Your task to perform on an android device: turn off notifications in google photos Image 0: 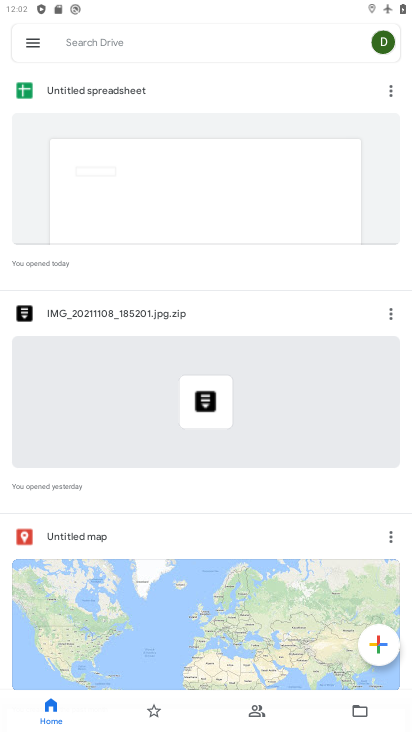
Step 0: press home button
Your task to perform on an android device: turn off notifications in google photos Image 1: 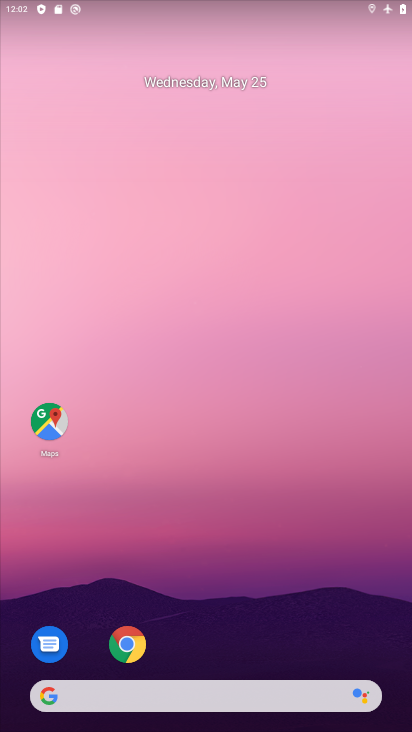
Step 1: drag from (199, 573) to (143, 80)
Your task to perform on an android device: turn off notifications in google photos Image 2: 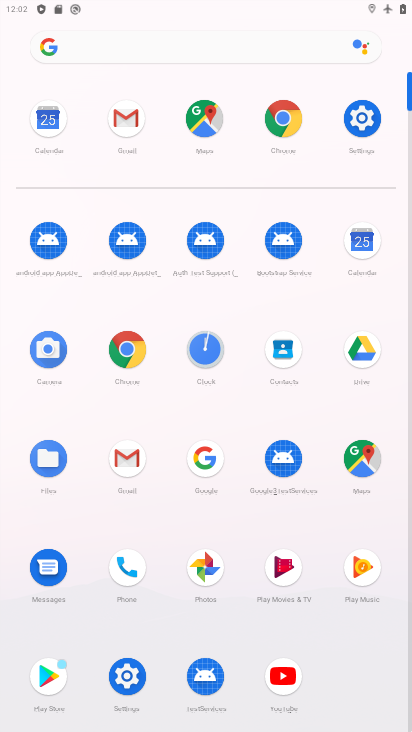
Step 2: click (200, 564)
Your task to perform on an android device: turn off notifications in google photos Image 3: 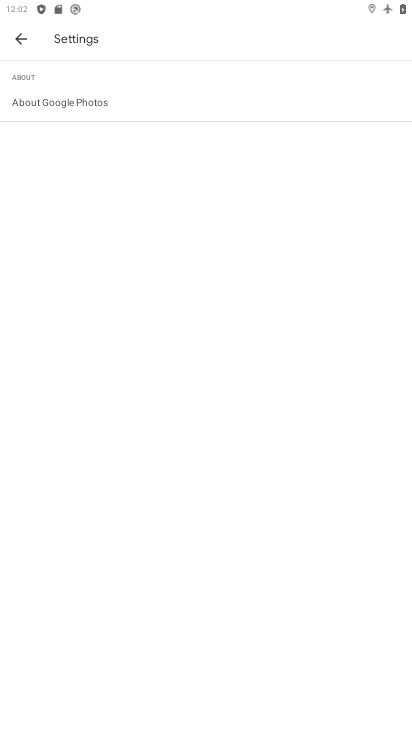
Step 3: click (22, 36)
Your task to perform on an android device: turn off notifications in google photos Image 4: 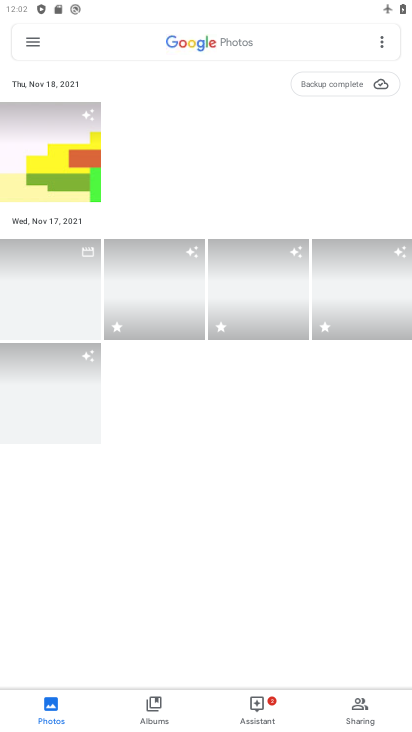
Step 4: click (29, 42)
Your task to perform on an android device: turn off notifications in google photos Image 5: 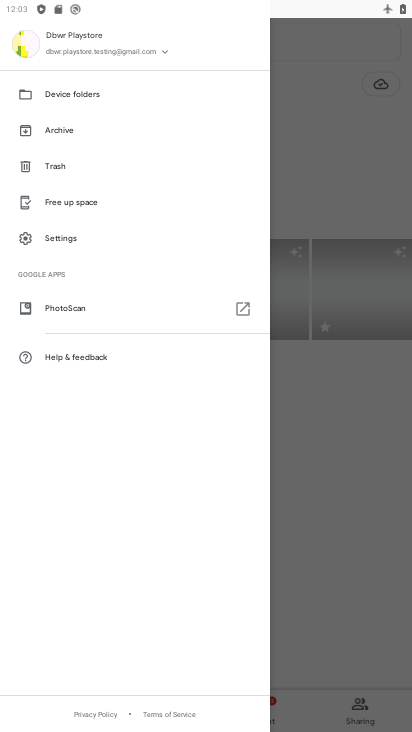
Step 5: click (58, 232)
Your task to perform on an android device: turn off notifications in google photos Image 6: 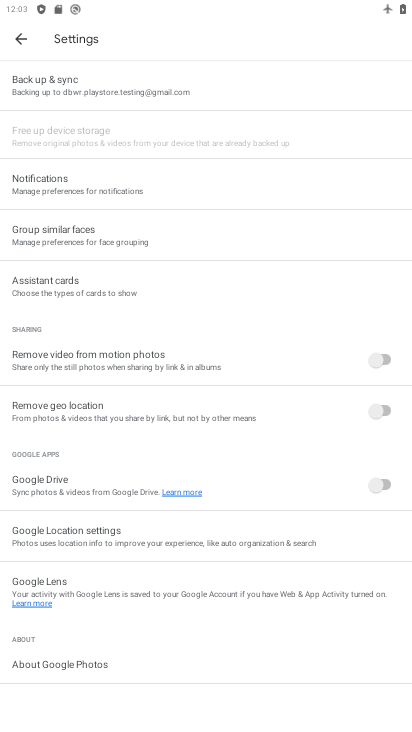
Step 6: click (48, 178)
Your task to perform on an android device: turn off notifications in google photos Image 7: 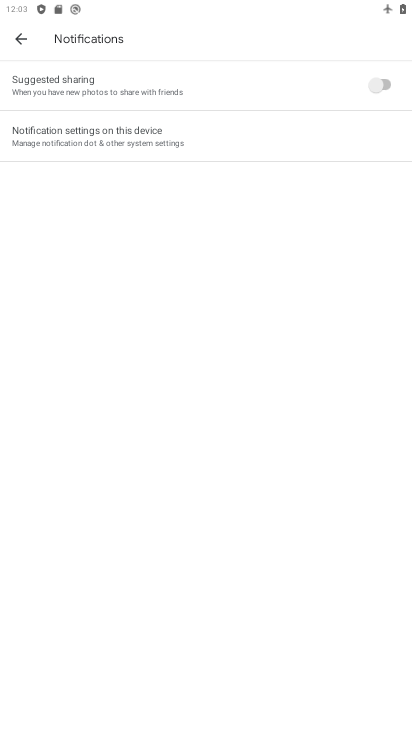
Step 7: click (122, 118)
Your task to perform on an android device: turn off notifications in google photos Image 8: 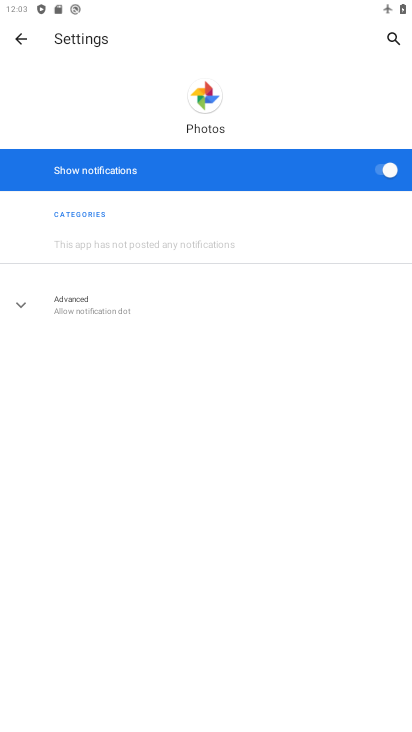
Step 8: click (388, 163)
Your task to perform on an android device: turn off notifications in google photos Image 9: 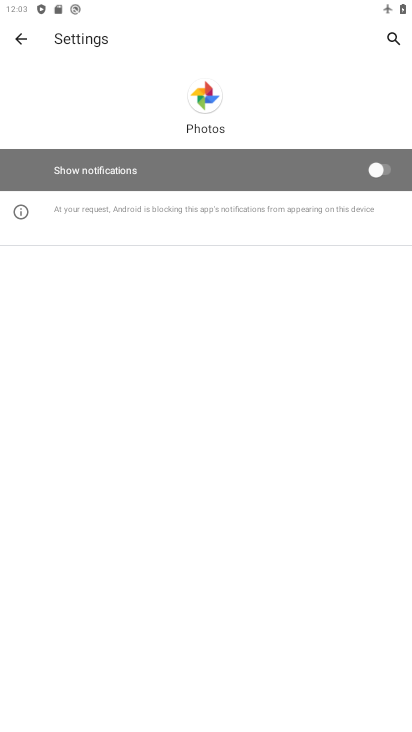
Step 9: task complete